Your task to perform on an android device: Open location settings Image 0: 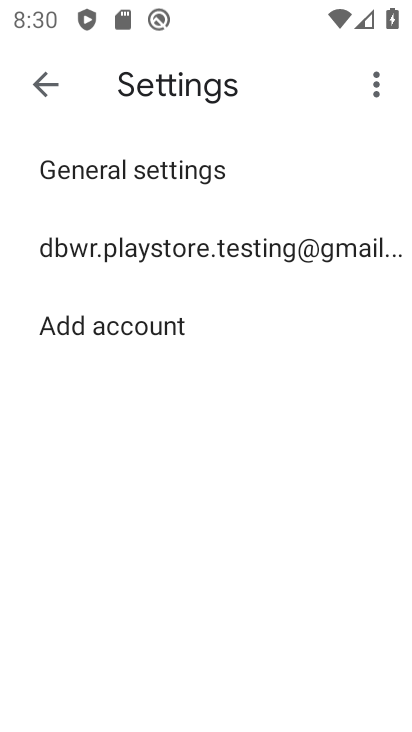
Step 0: press back button
Your task to perform on an android device: Open location settings Image 1: 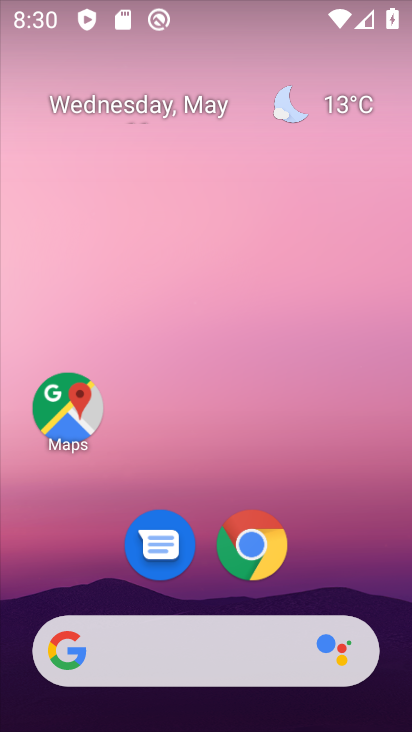
Step 1: drag from (319, 483) to (212, 36)
Your task to perform on an android device: Open location settings Image 2: 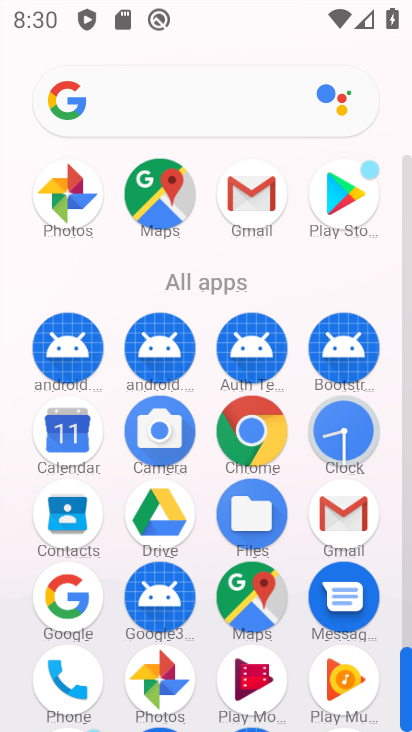
Step 2: drag from (17, 556) to (16, 197)
Your task to perform on an android device: Open location settings Image 3: 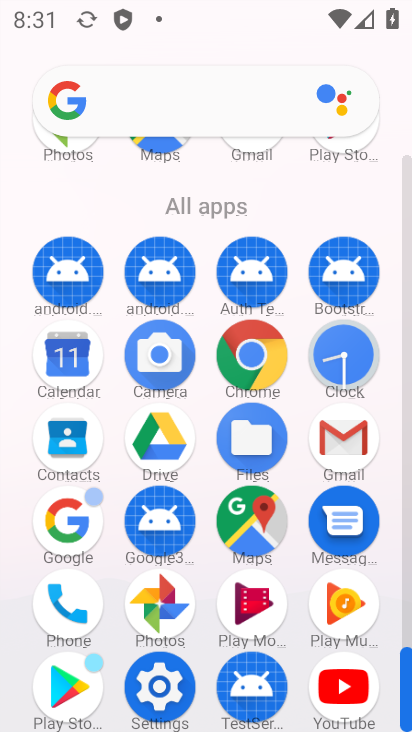
Step 3: click (156, 688)
Your task to perform on an android device: Open location settings Image 4: 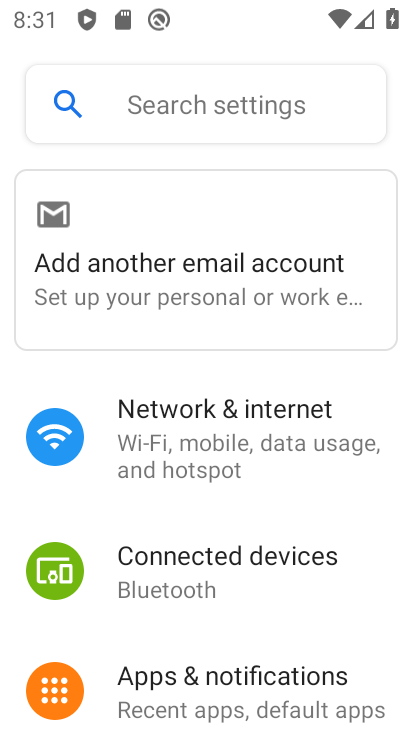
Step 4: drag from (272, 623) to (258, 226)
Your task to perform on an android device: Open location settings Image 5: 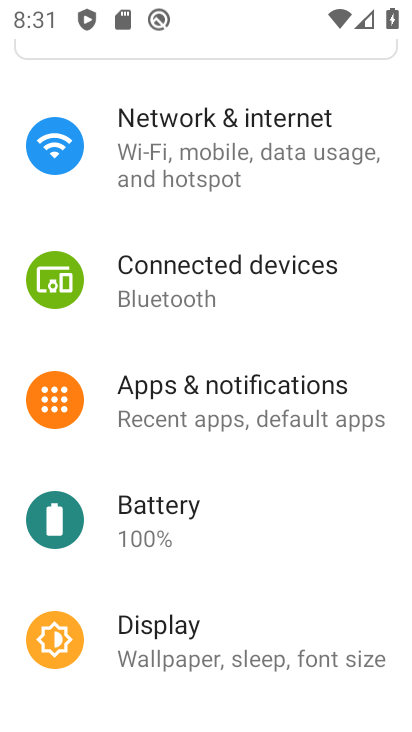
Step 5: drag from (239, 570) to (272, 156)
Your task to perform on an android device: Open location settings Image 6: 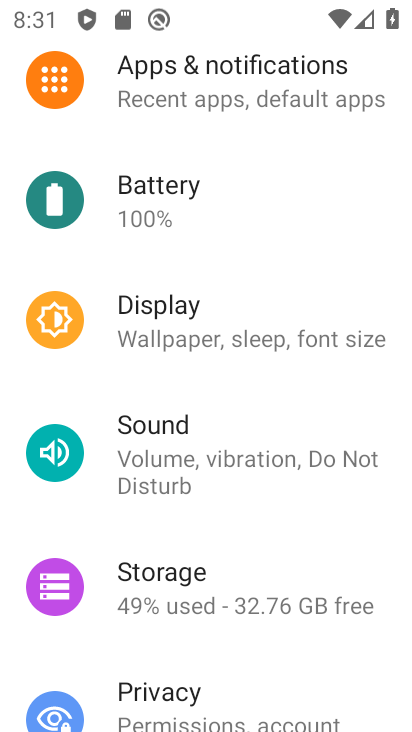
Step 6: drag from (248, 554) to (251, 234)
Your task to perform on an android device: Open location settings Image 7: 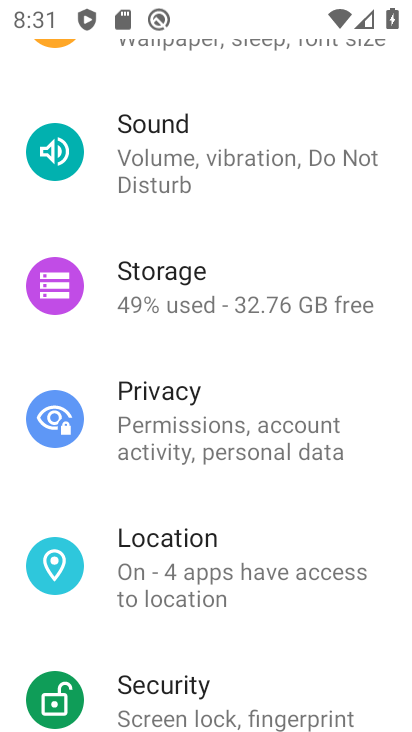
Step 7: click (207, 551)
Your task to perform on an android device: Open location settings Image 8: 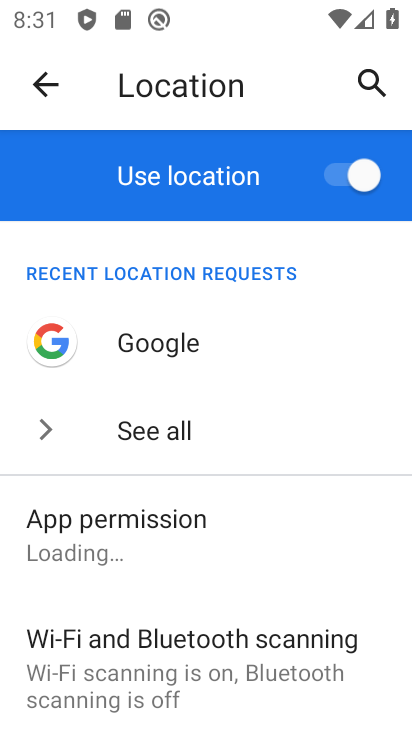
Step 8: drag from (247, 554) to (268, 165)
Your task to perform on an android device: Open location settings Image 9: 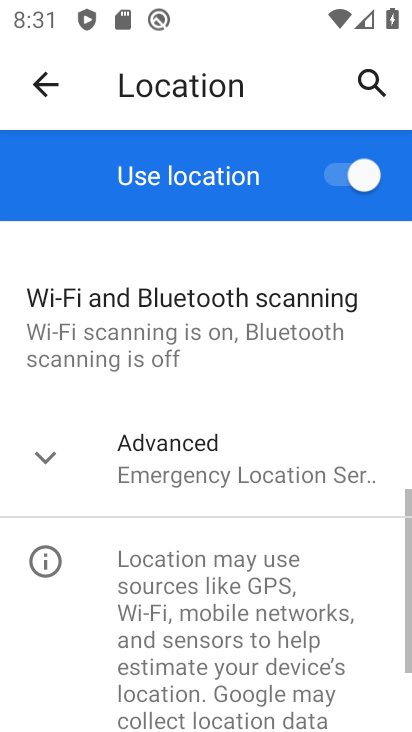
Step 9: click (51, 466)
Your task to perform on an android device: Open location settings Image 10: 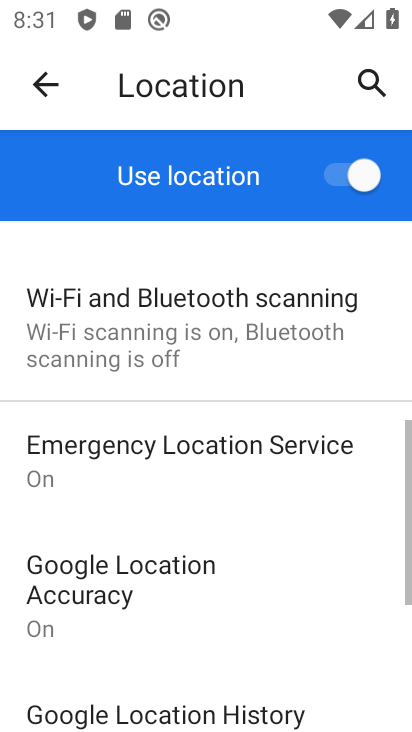
Step 10: task complete